Your task to perform on an android device: Open a new incognito tab in the chrome app Image 0: 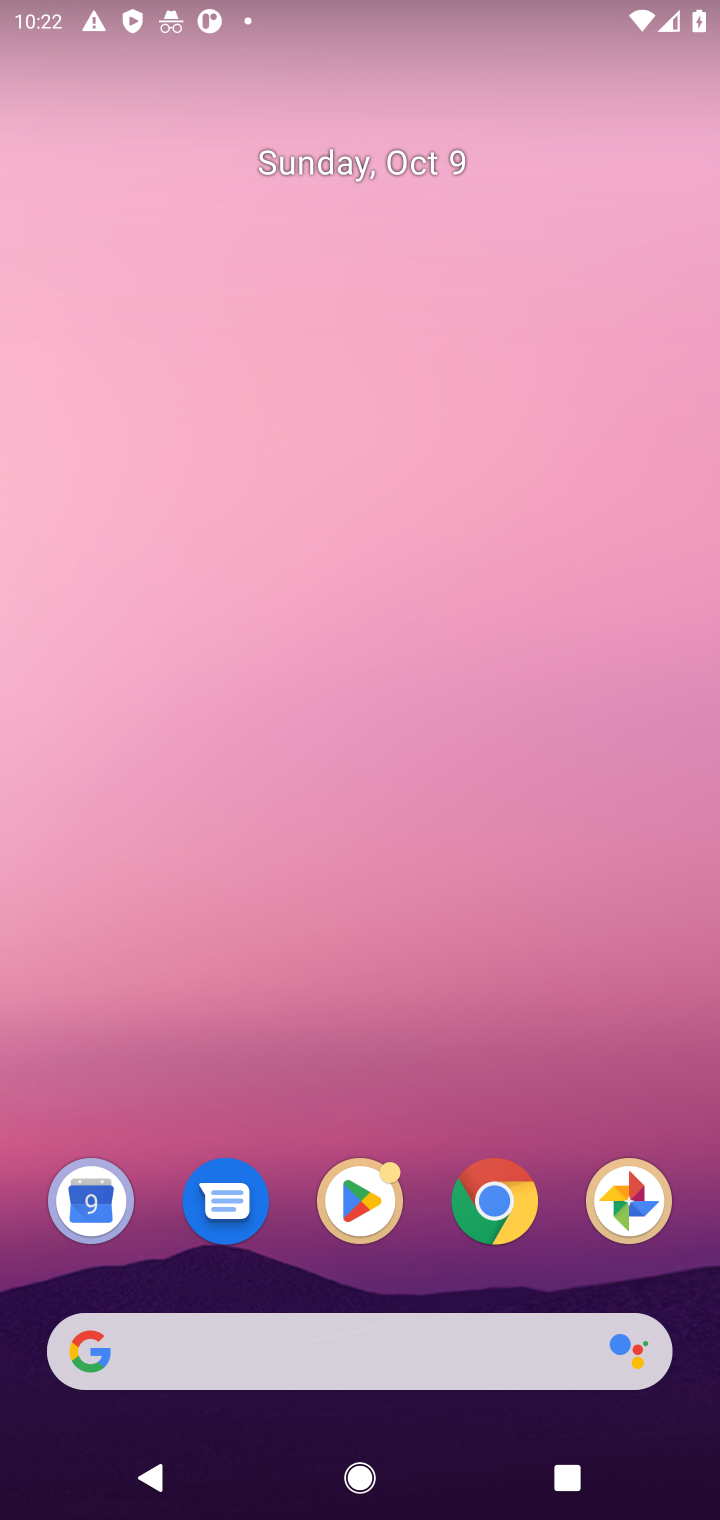
Step 0: click (507, 1191)
Your task to perform on an android device: Open a new incognito tab in the chrome app Image 1: 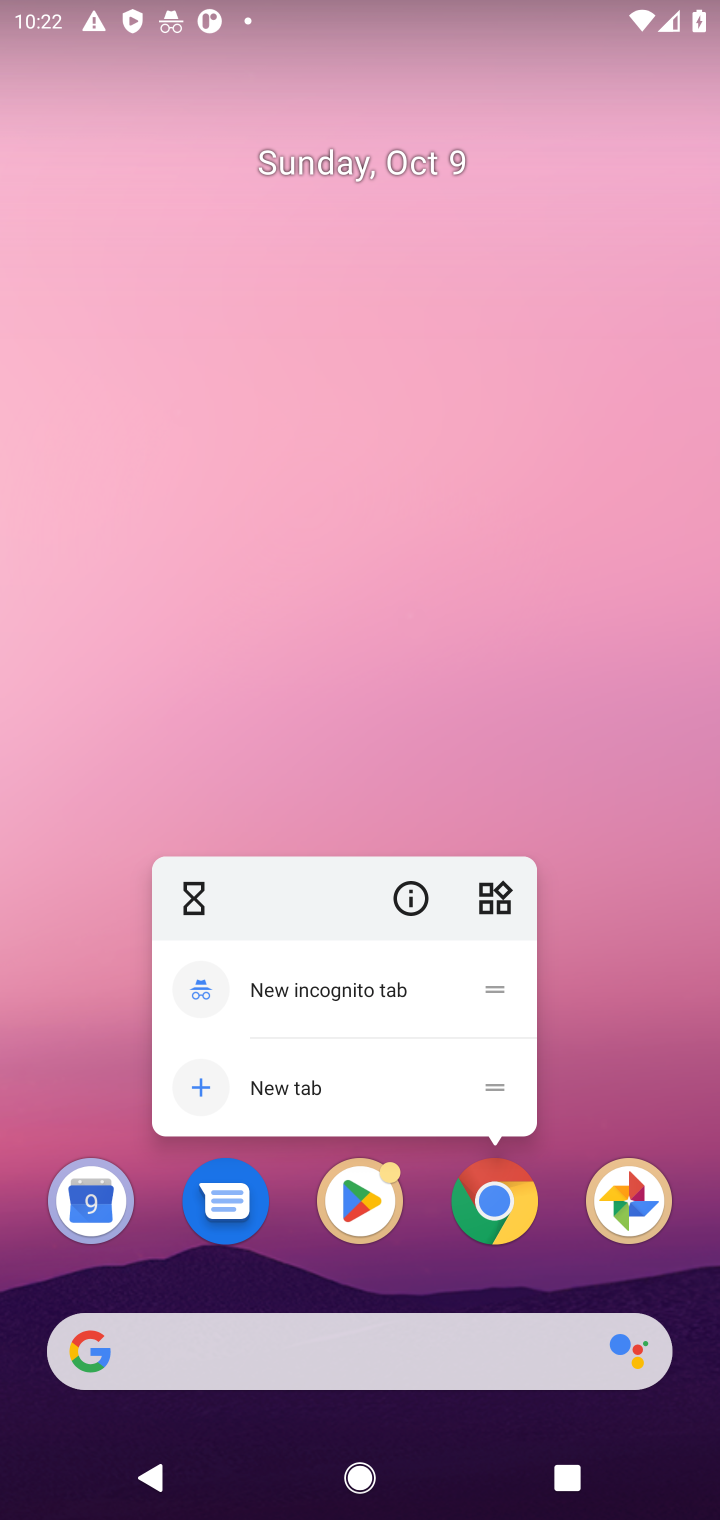
Step 1: click (497, 1225)
Your task to perform on an android device: Open a new incognito tab in the chrome app Image 2: 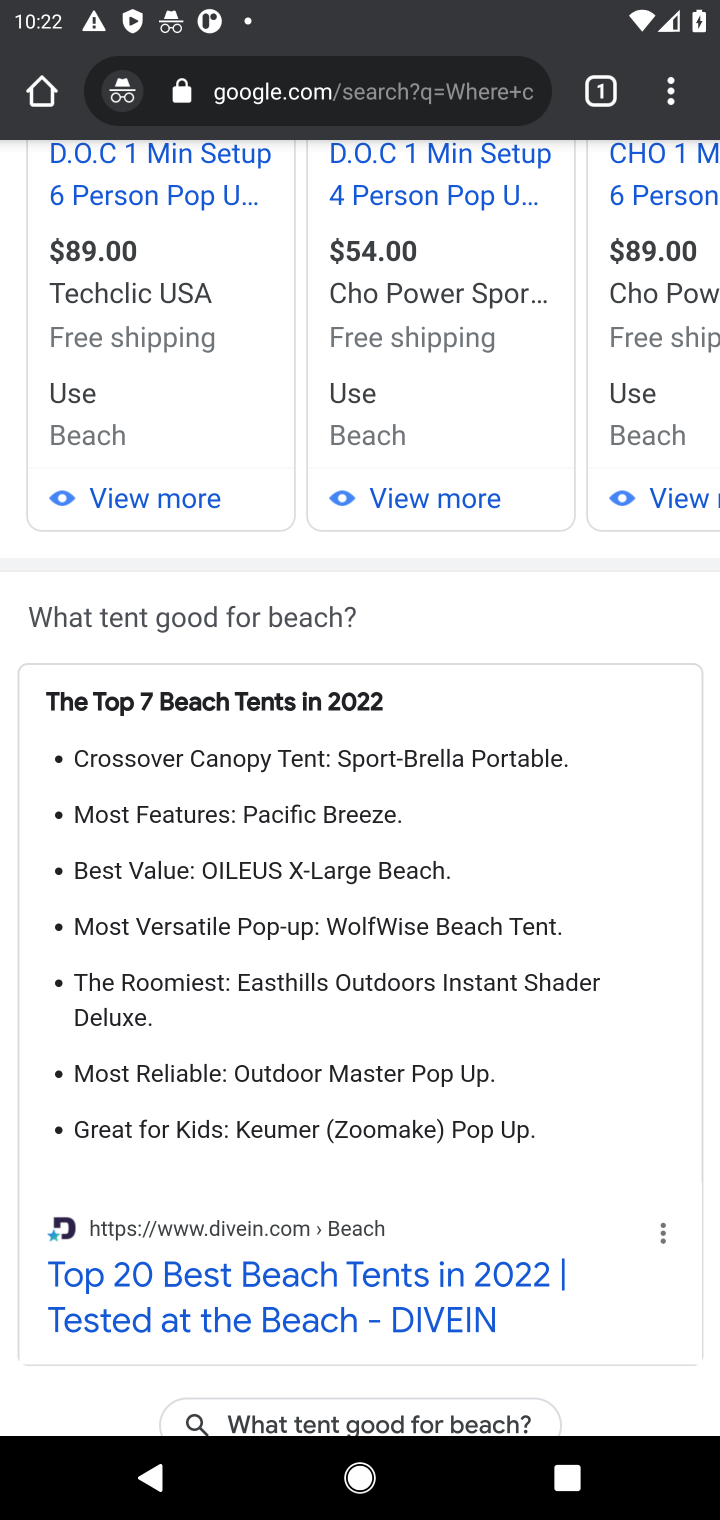
Step 2: click (662, 91)
Your task to perform on an android device: Open a new incognito tab in the chrome app Image 3: 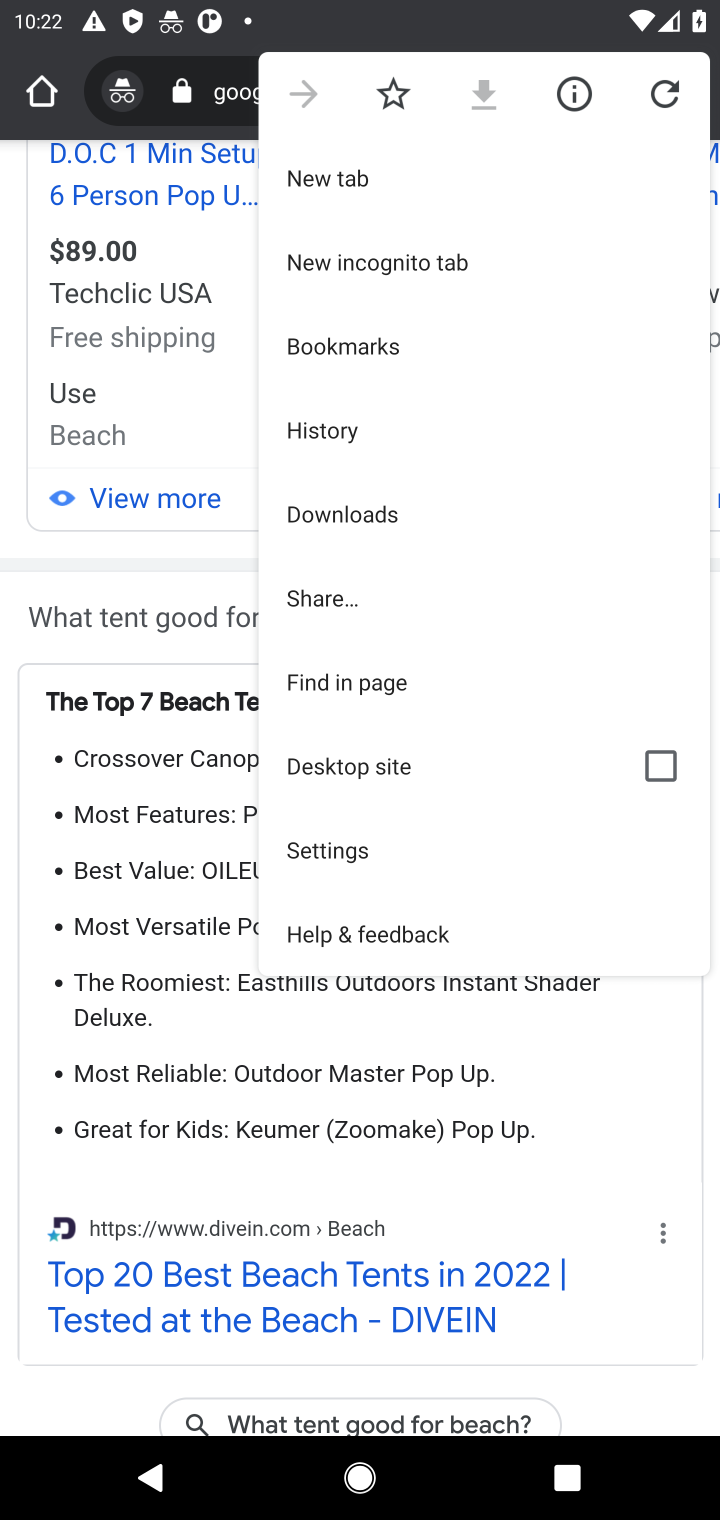
Step 3: click (479, 259)
Your task to perform on an android device: Open a new incognito tab in the chrome app Image 4: 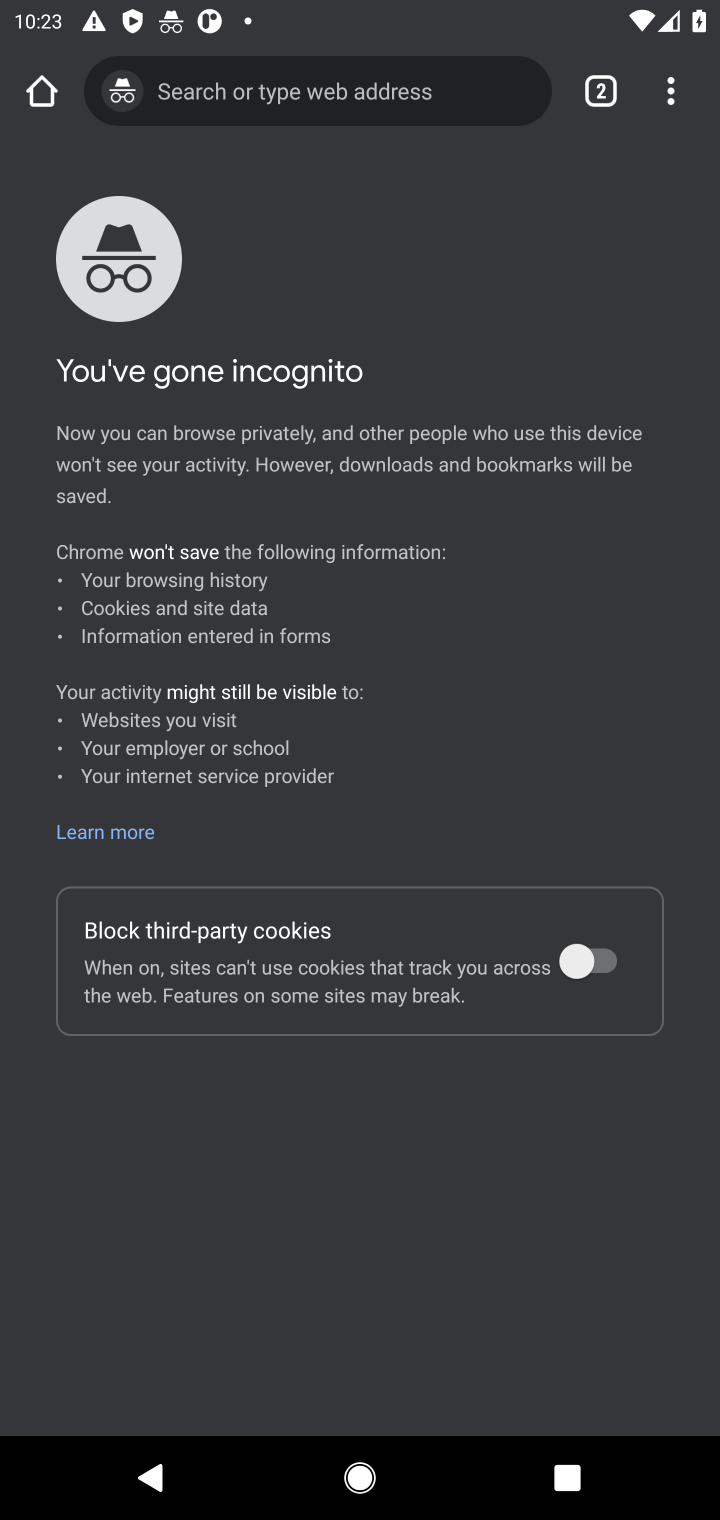
Step 4: task complete